Your task to perform on an android device: change keyboard looks Image 0: 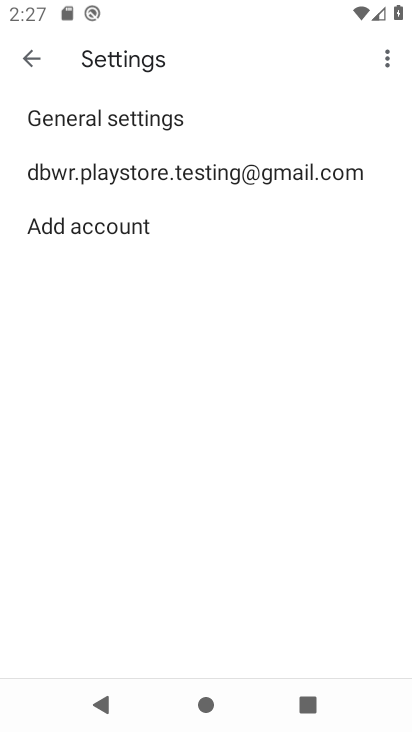
Step 0: press back button
Your task to perform on an android device: change keyboard looks Image 1: 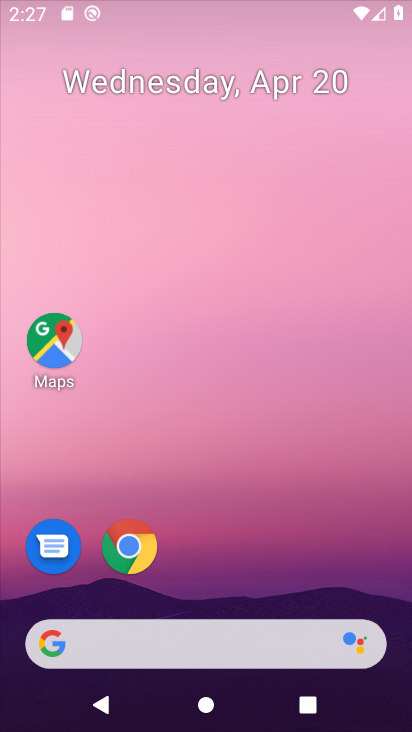
Step 1: drag from (252, 468) to (325, 0)
Your task to perform on an android device: change keyboard looks Image 2: 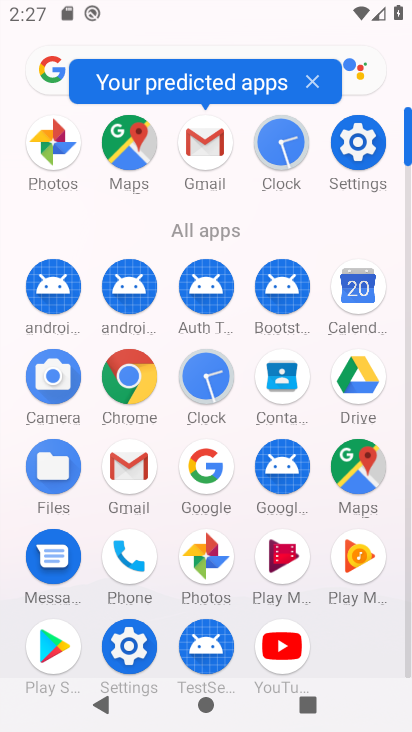
Step 2: click (341, 139)
Your task to perform on an android device: change keyboard looks Image 3: 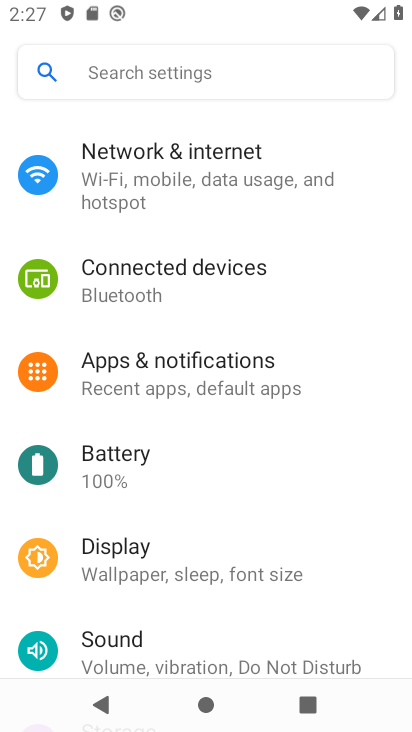
Step 3: drag from (182, 626) to (290, 121)
Your task to perform on an android device: change keyboard looks Image 4: 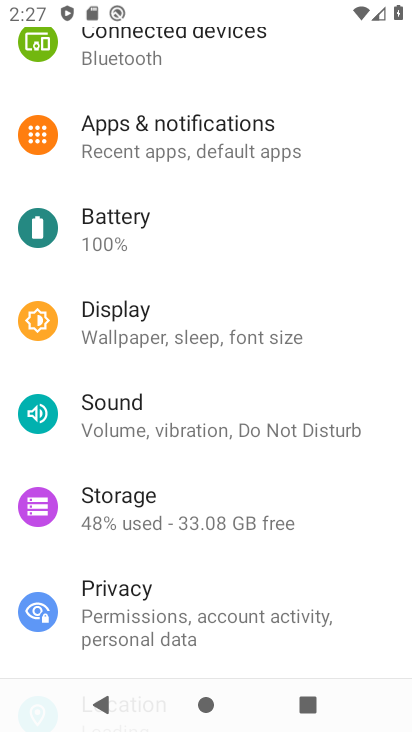
Step 4: drag from (330, 212) to (298, 189)
Your task to perform on an android device: change keyboard looks Image 5: 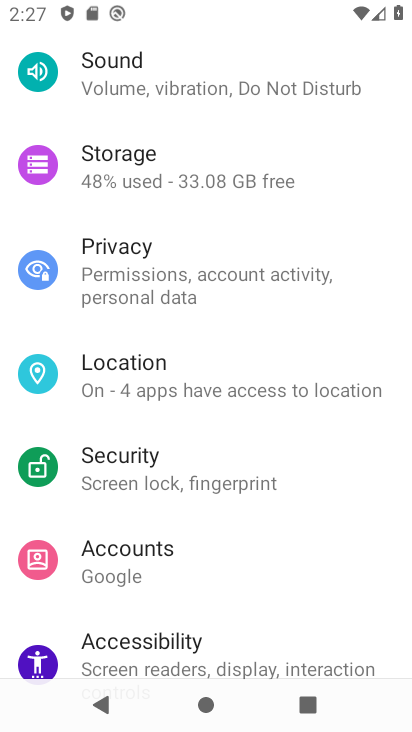
Step 5: drag from (176, 647) to (311, 122)
Your task to perform on an android device: change keyboard looks Image 6: 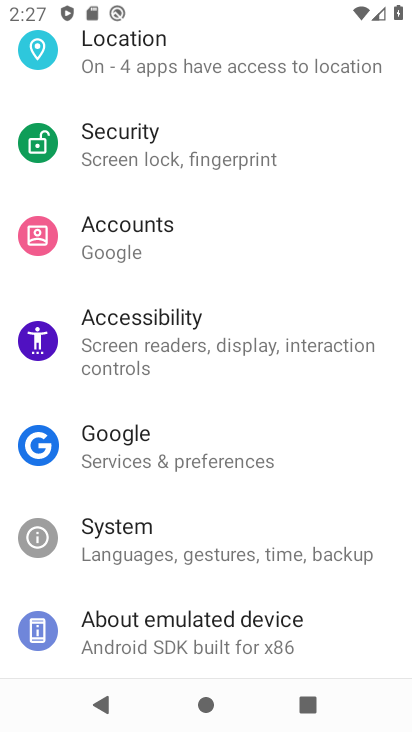
Step 6: click (148, 547)
Your task to perform on an android device: change keyboard looks Image 7: 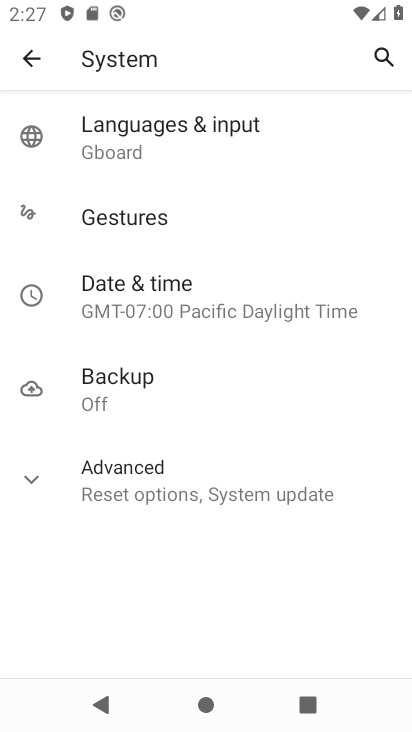
Step 7: click (223, 153)
Your task to perform on an android device: change keyboard looks Image 8: 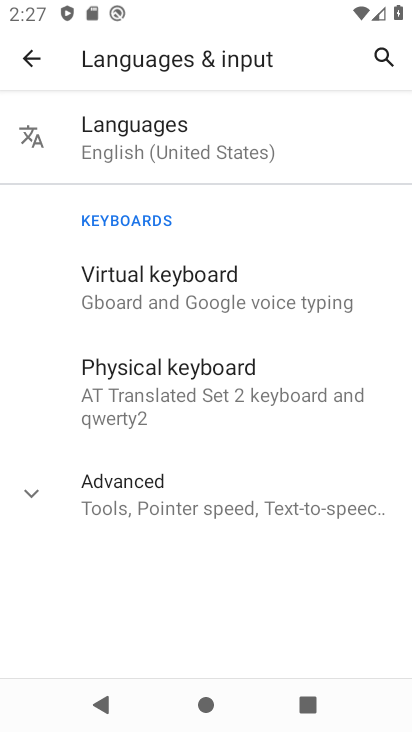
Step 8: click (250, 302)
Your task to perform on an android device: change keyboard looks Image 9: 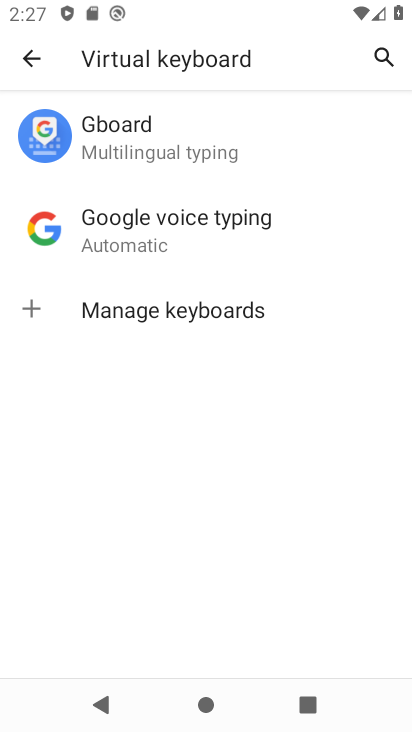
Step 9: click (215, 157)
Your task to perform on an android device: change keyboard looks Image 10: 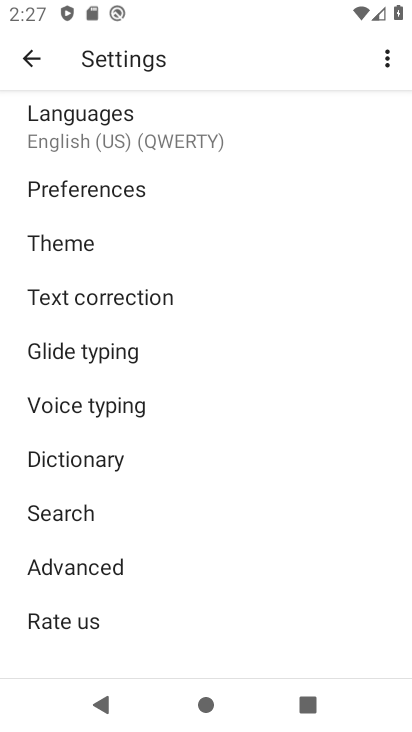
Step 10: click (142, 272)
Your task to perform on an android device: change keyboard looks Image 11: 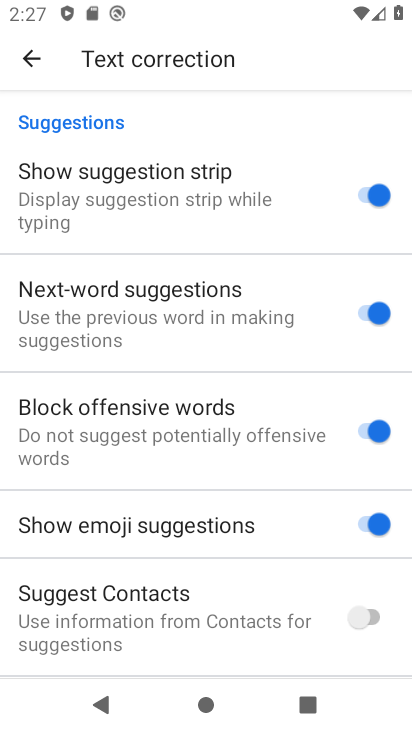
Step 11: click (368, 520)
Your task to perform on an android device: change keyboard looks Image 12: 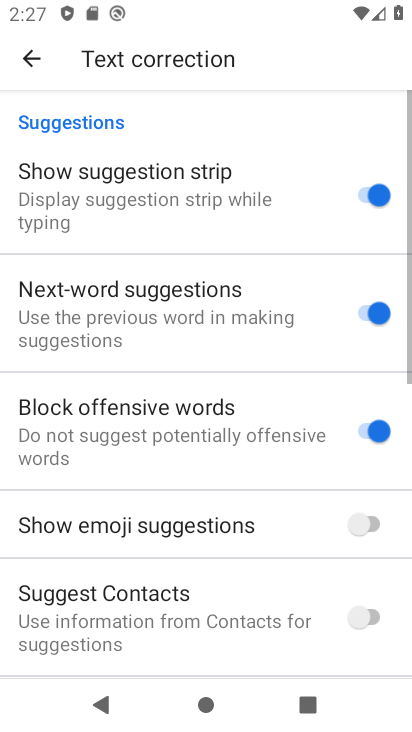
Step 12: click (370, 422)
Your task to perform on an android device: change keyboard looks Image 13: 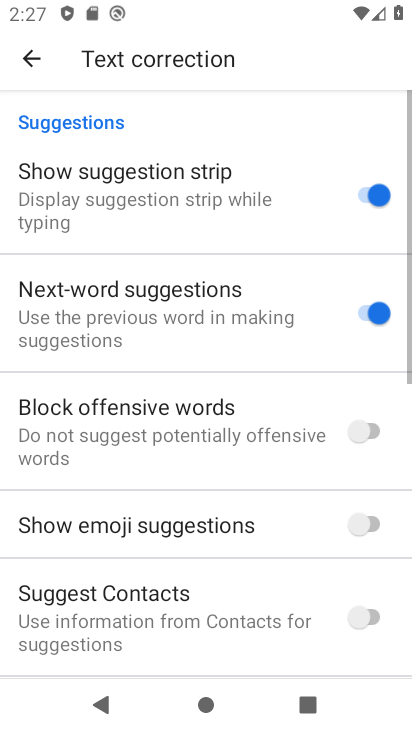
Step 13: click (366, 296)
Your task to perform on an android device: change keyboard looks Image 14: 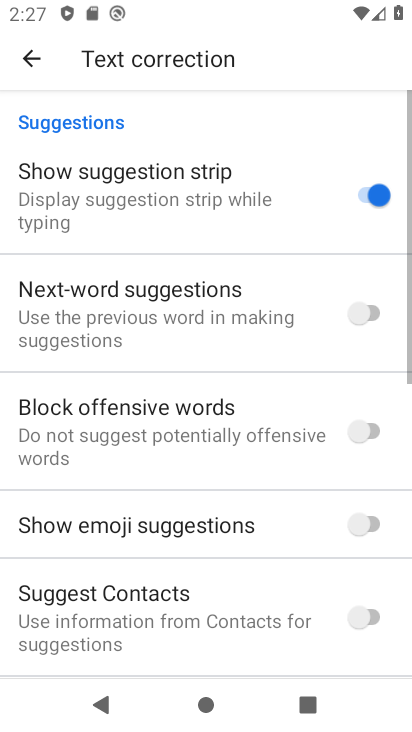
Step 14: click (35, 64)
Your task to perform on an android device: change keyboard looks Image 15: 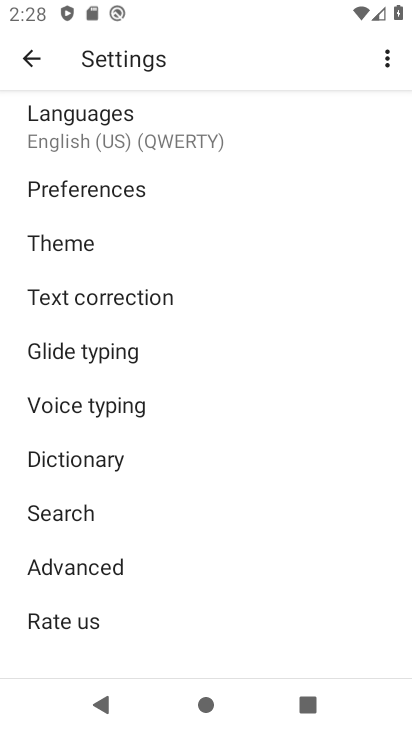
Step 15: click (152, 246)
Your task to perform on an android device: change keyboard looks Image 16: 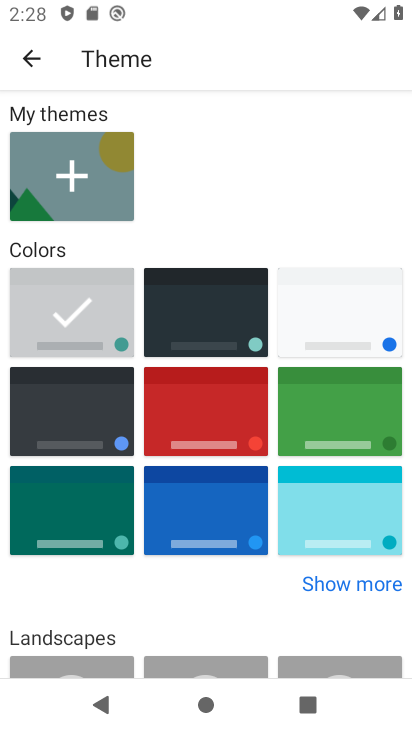
Step 16: click (377, 587)
Your task to perform on an android device: change keyboard looks Image 17: 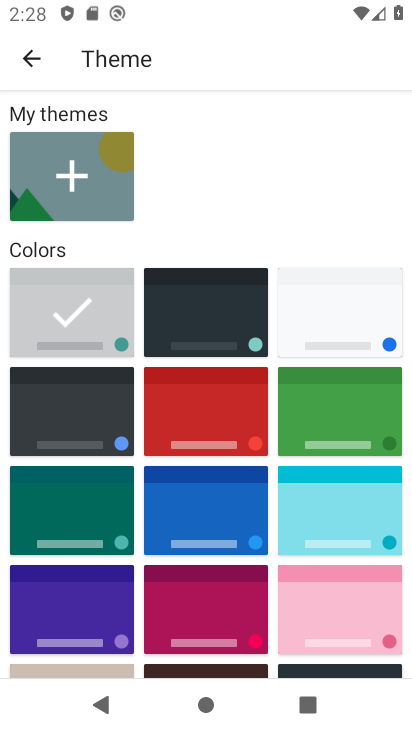
Step 17: drag from (248, 522) to (365, 120)
Your task to perform on an android device: change keyboard looks Image 18: 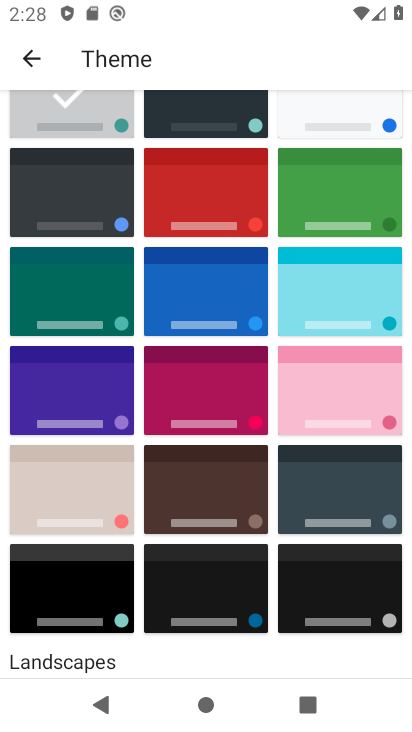
Step 18: click (329, 603)
Your task to perform on an android device: change keyboard looks Image 19: 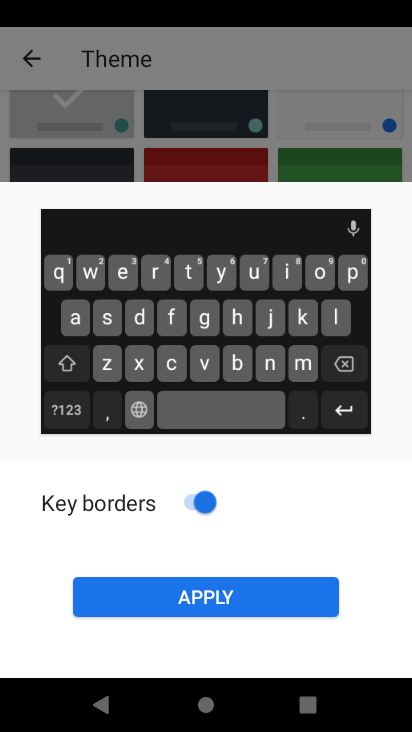
Step 19: click (210, 607)
Your task to perform on an android device: change keyboard looks Image 20: 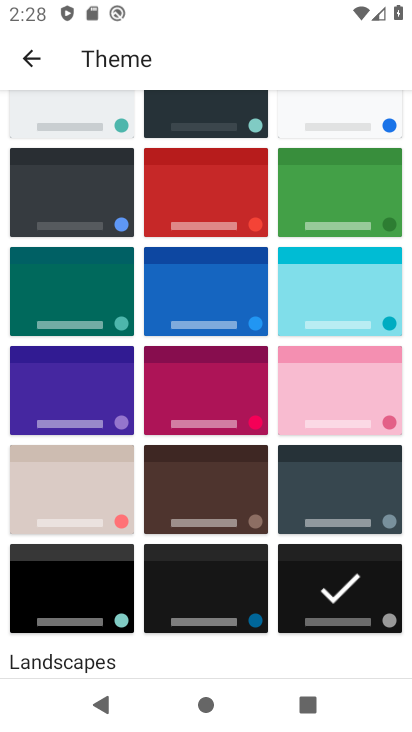
Step 20: task complete